Your task to perform on an android device: Open Yahoo.com Image 0: 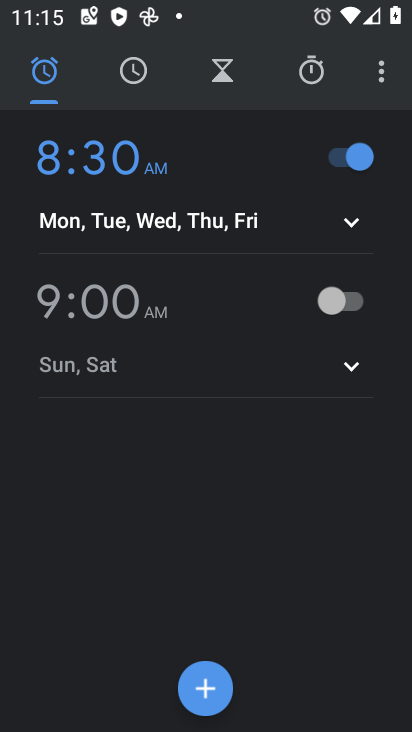
Step 0: press home button
Your task to perform on an android device: Open Yahoo.com Image 1: 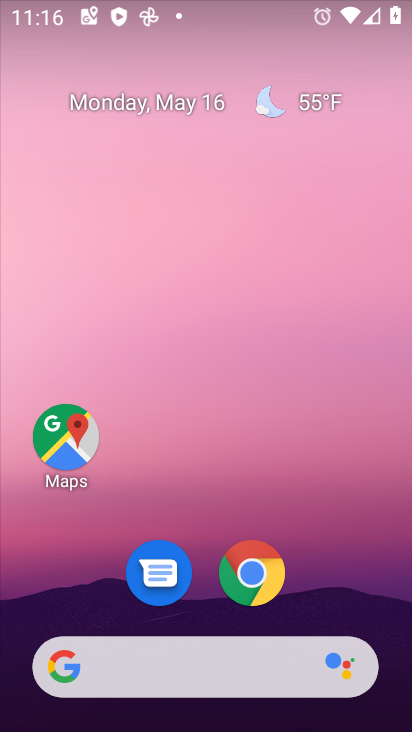
Step 1: click (266, 565)
Your task to perform on an android device: Open Yahoo.com Image 2: 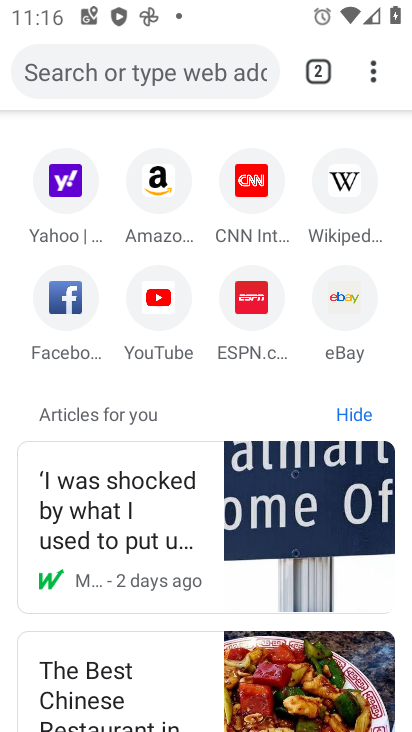
Step 2: click (54, 189)
Your task to perform on an android device: Open Yahoo.com Image 3: 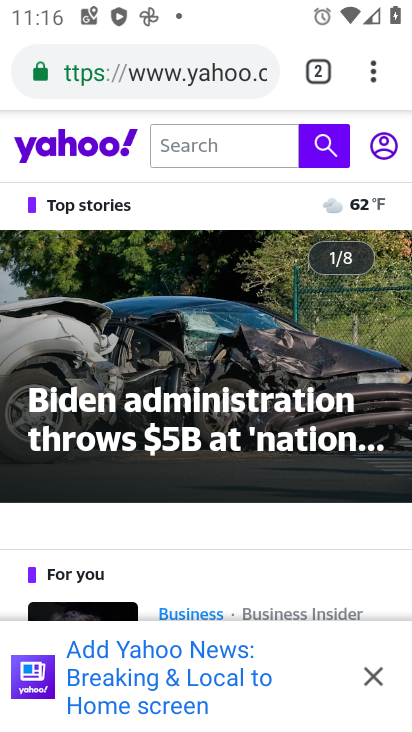
Step 3: task complete